Your task to perform on an android device: What's on my calendar tomorrow? Image 0: 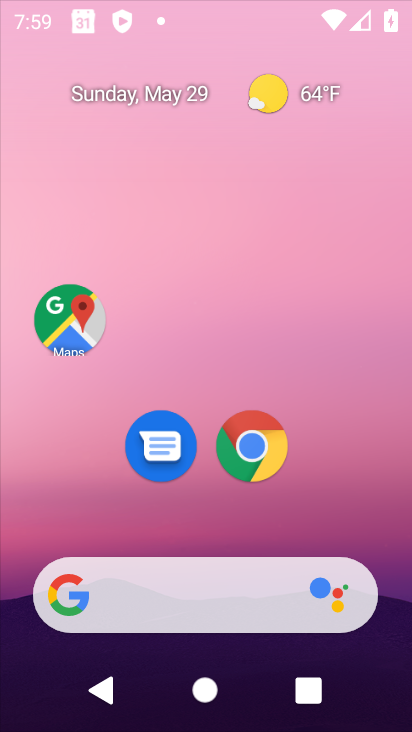
Step 0: click (314, 0)
Your task to perform on an android device: What's on my calendar tomorrow? Image 1: 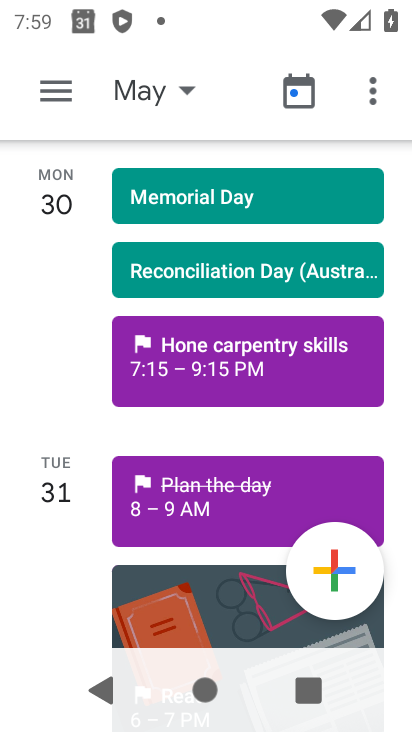
Step 1: drag from (178, 590) to (261, 206)
Your task to perform on an android device: What's on my calendar tomorrow? Image 2: 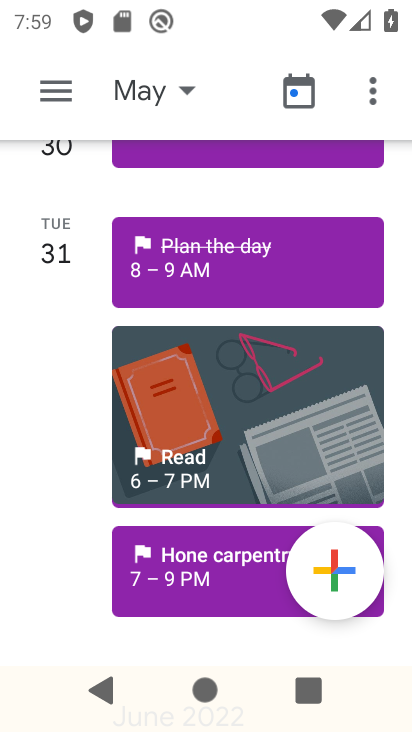
Step 2: click (150, 101)
Your task to perform on an android device: What's on my calendar tomorrow? Image 3: 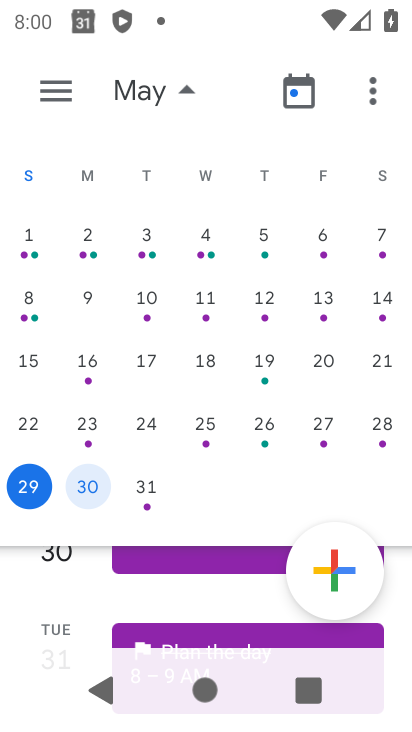
Step 3: click (88, 486)
Your task to perform on an android device: What's on my calendar tomorrow? Image 4: 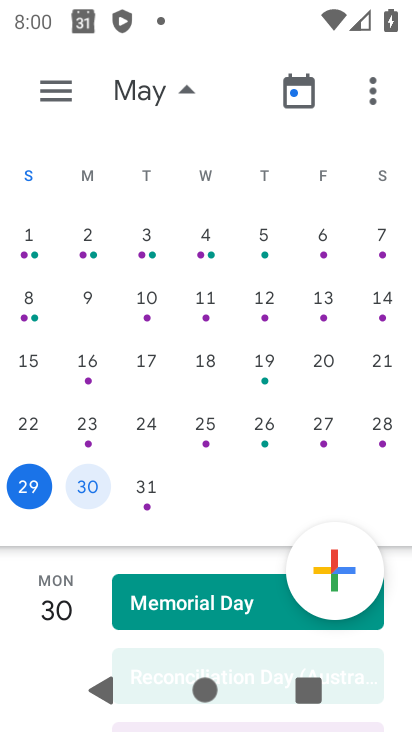
Step 4: task complete